Your task to perform on an android device: open a bookmark in the chrome app Image 0: 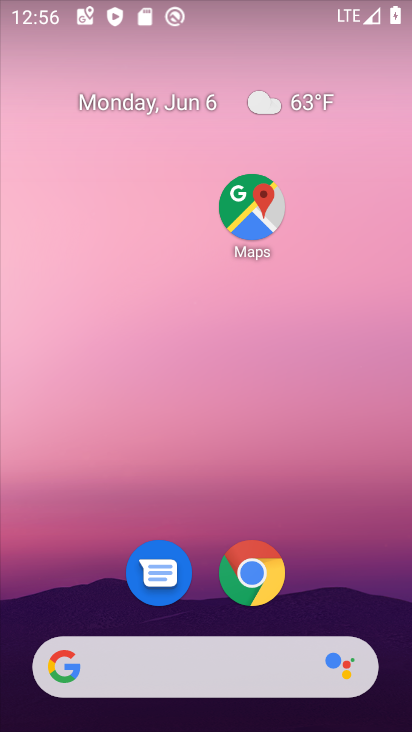
Step 0: drag from (213, 488) to (186, 0)
Your task to perform on an android device: open a bookmark in the chrome app Image 1: 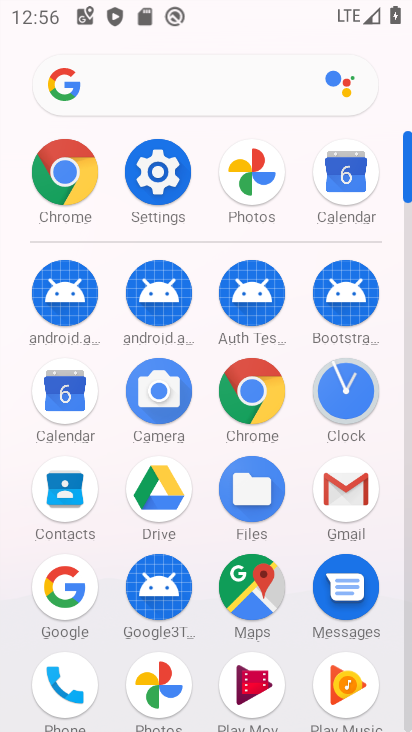
Step 1: drag from (206, 154) to (192, 367)
Your task to perform on an android device: open a bookmark in the chrome app Image 2: 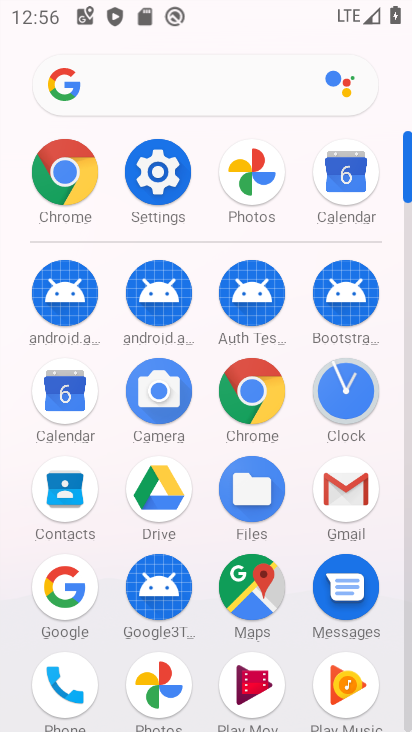
Step 2: click (263, 409)
Your task to perform on an android device: open a bookmark in the chrome app Image 3: 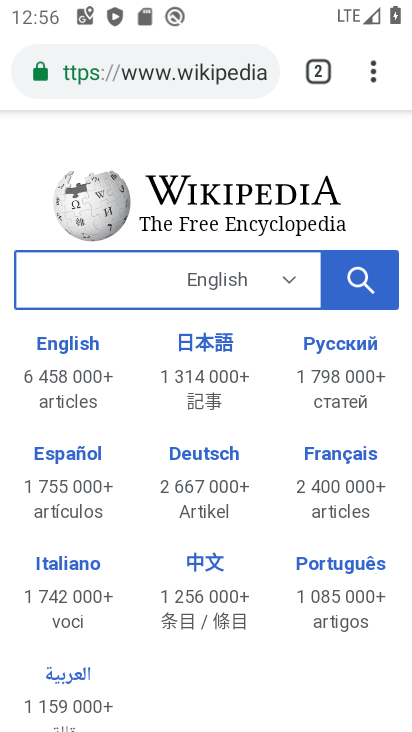
Step 3: click (372, 72)
Your task to perform on an android device: open a bookmark in the chrome app Image 4: 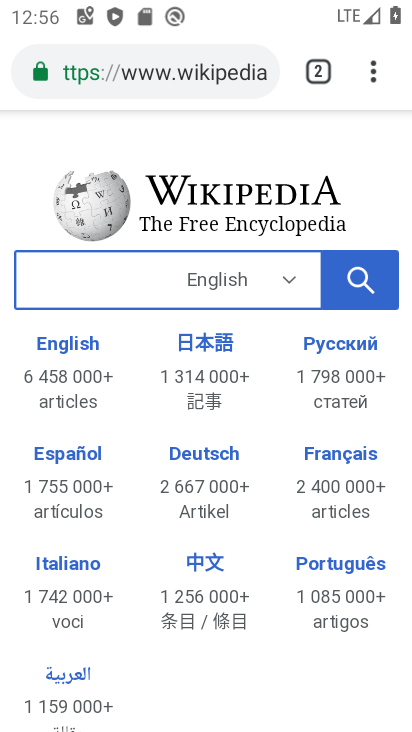
Step 4: click (372, 72)
Your task to perform on an android device: open a bookmark in the chrome app Image 5: 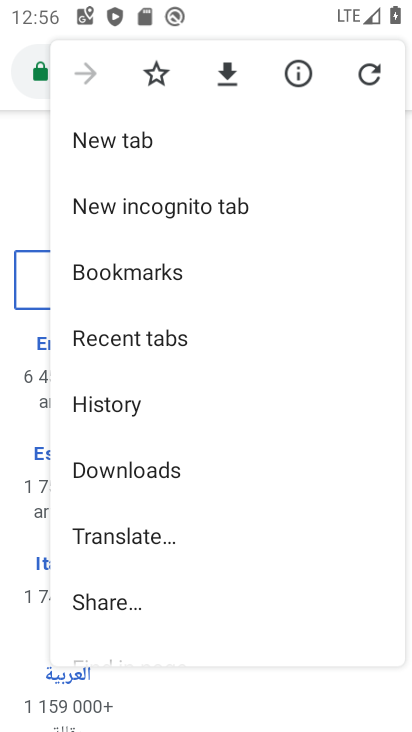
Step 5: click (164, 276)
Your task to perform on an android device: open a bookmark in the chrome app Image 6: 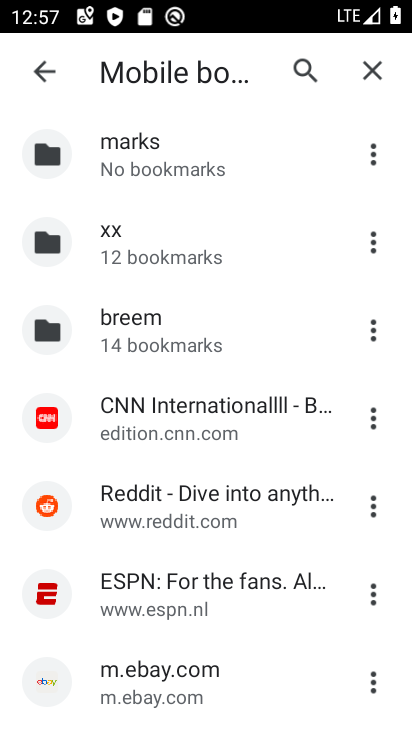
Step 6: click (159, 244)
Your task to perform on an android device: open a bookmark in the chrome app Image 7: 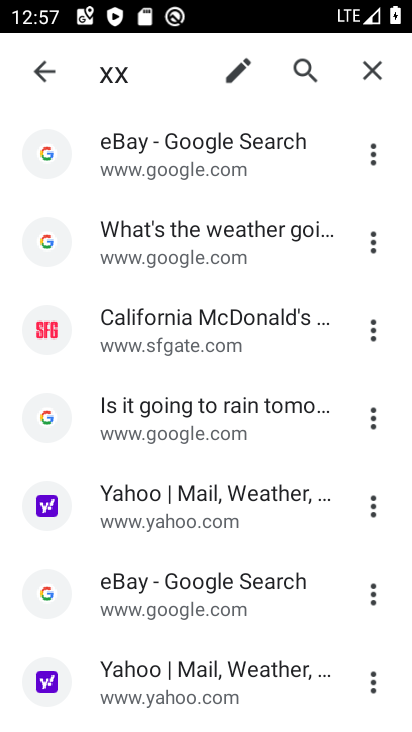
Step 7: click (287, 167)
Your task to perform on an android device: open a bookmark in the chrome app Image 8: 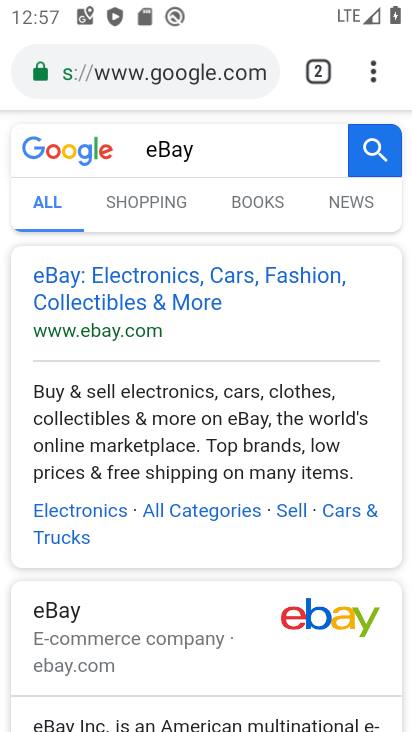
Step 8: task complete